Your task to perform on an android device: Open sound settings Image 0: 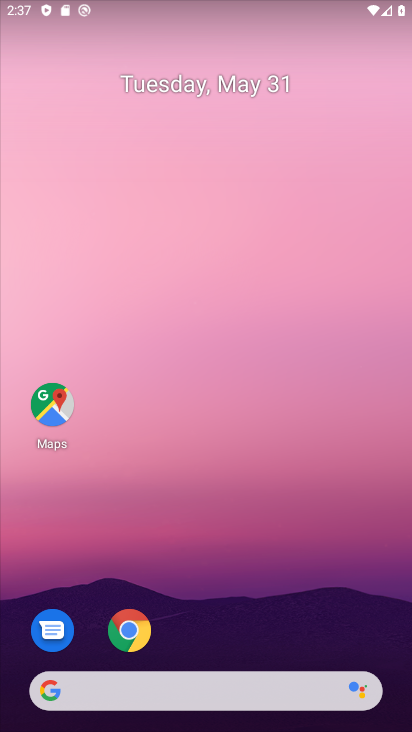
Step 0: drag from (221, 655) to (195, 263)
Your task to perform on an android device: Open sound settings Image 1: 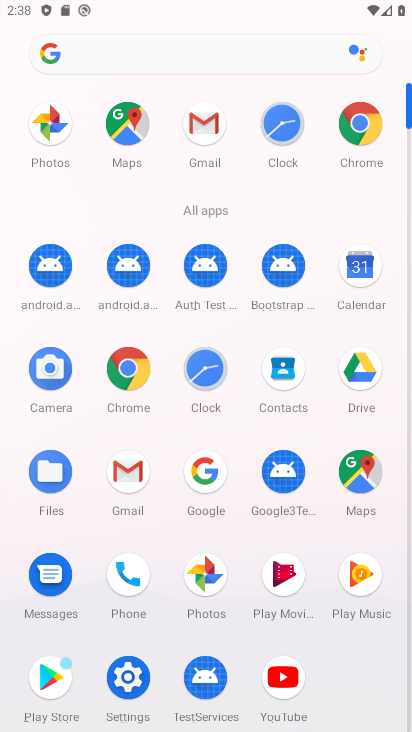
Step 1: click (126, 672)
Your task to perform on an android device: Open sound settings Image 2: 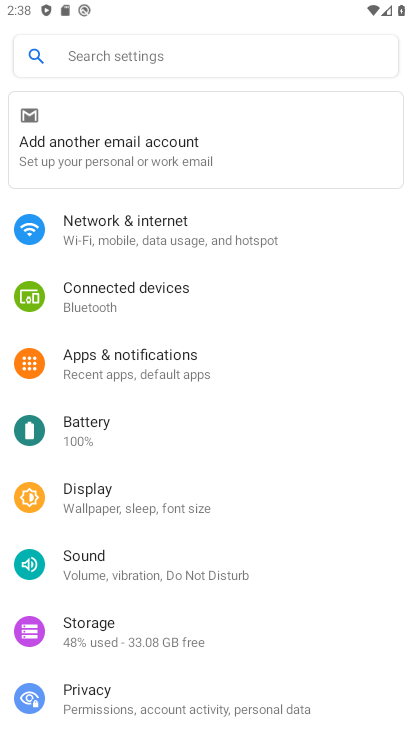
Step 2: click (93, 574)
Your task to perform on an android device: Open sound settings Image 3: 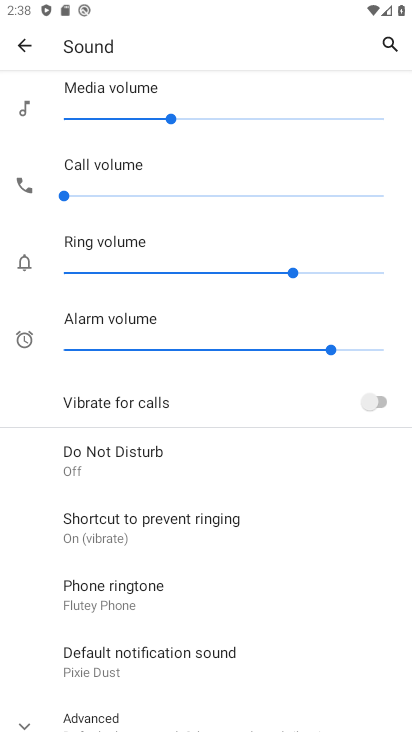
Step 3: task complete